Your task to perform on an android device: Search for Mexican restaurants on Maps Image 0: 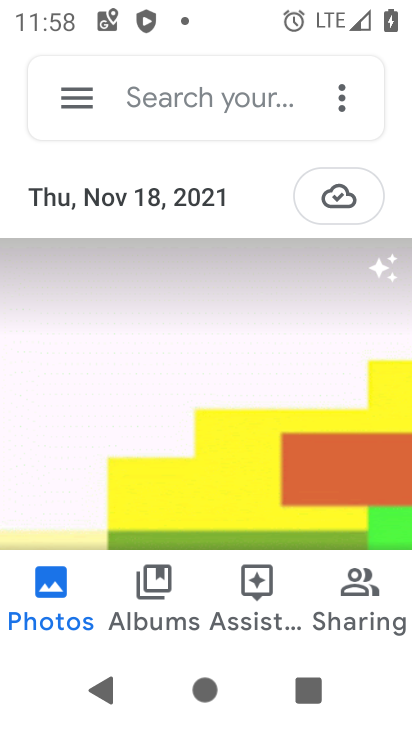
Step 0: press home button
Your task to perform on an android device: Search for Mexican restaurants on Maps Image 1: 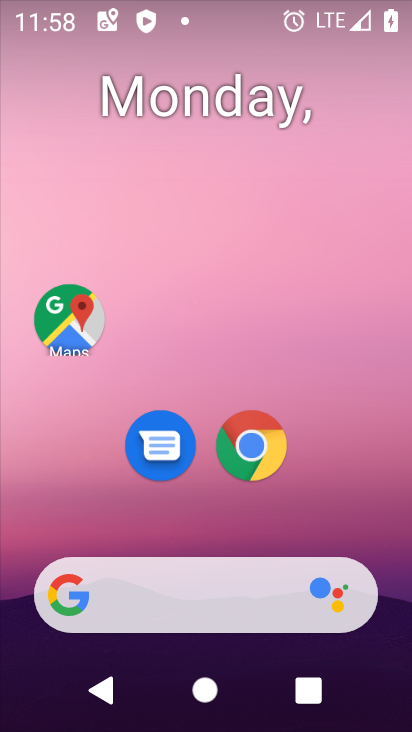
Step 1: click (59, 319)
Your task to perform on an android device: Search for Mexican restaurants on Maps Image 2: 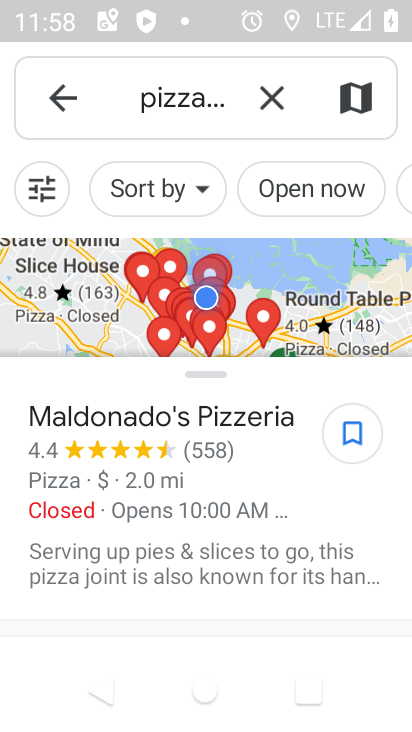
Step 2: click (264, 92)
Your task to perform on an android device: Search for Mexican restaurants on Maps Image 3: 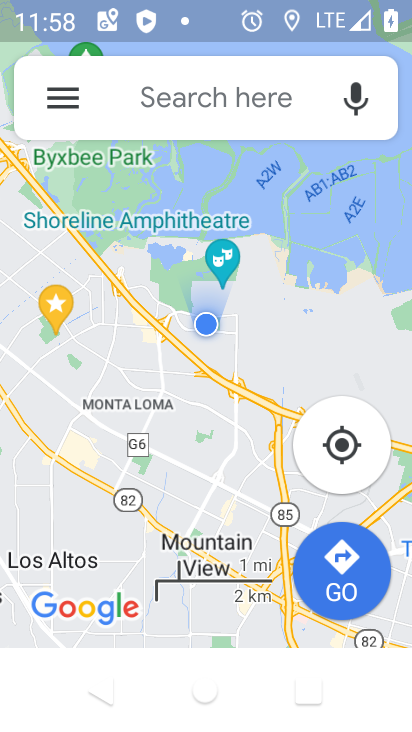
Step 3: click (191, 85)
Your task to perform on an android device: Search for Mexican restaurants on Maps Image 4: 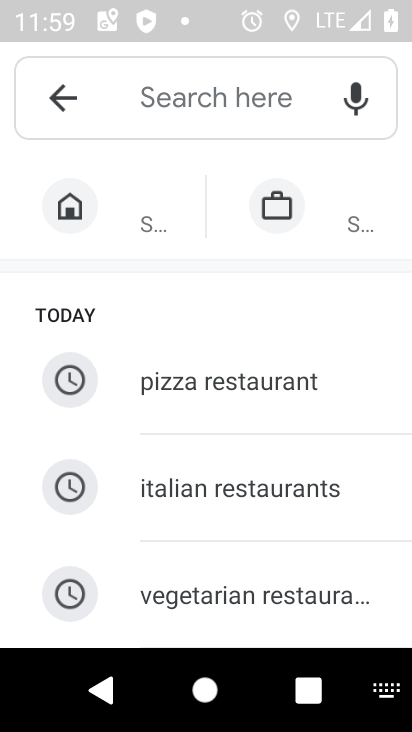
Step 4: type "mexican"
Your task to perform on an android device: Search for Mexican restaurants on Maps Image 5: 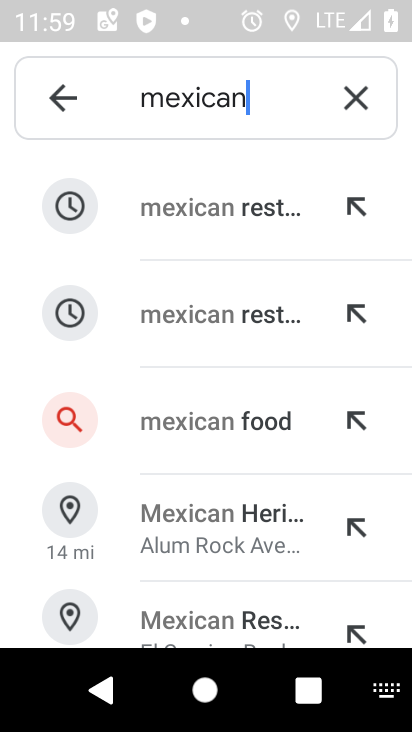
Step 5: click (247, 208)
Your task to perform on an android device: Search for Mexican restaurants on Maps Image 6: 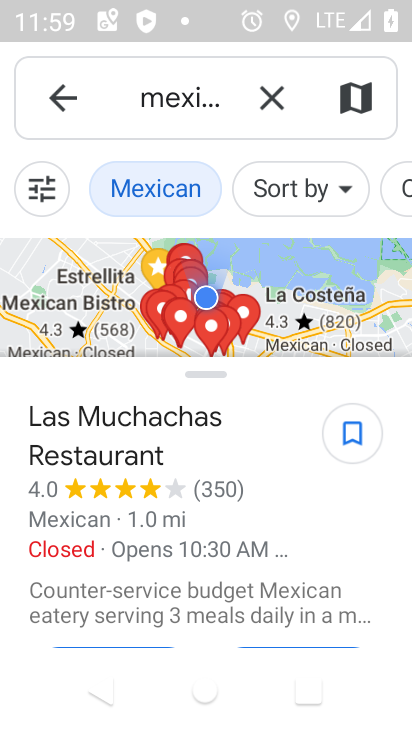
Step 6: task complete